Your task to perform on an android device: search for starred emails in the gmail app Image 0: 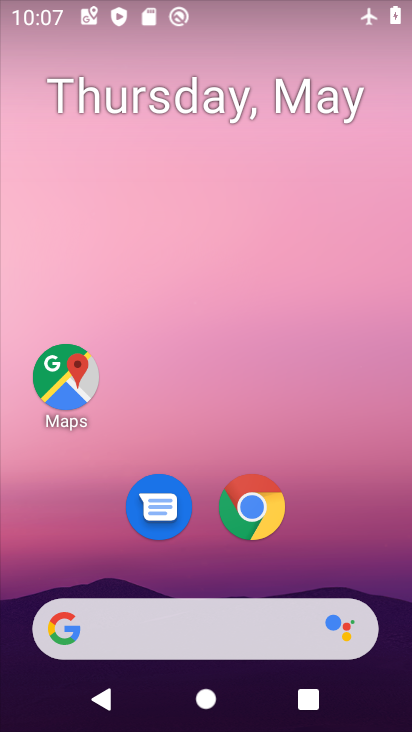
Step 0: drag from (279, 656) to (288, 184)
Your task to perform on an android device: search for starred emails in the gmail app Image 1: 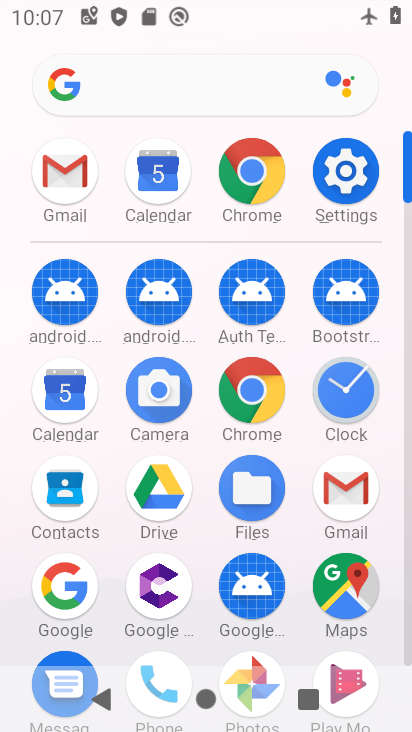
Step 1: click (340, 487)
Your task to perform on an android device: search for starred emails in the gmail app Image 2: 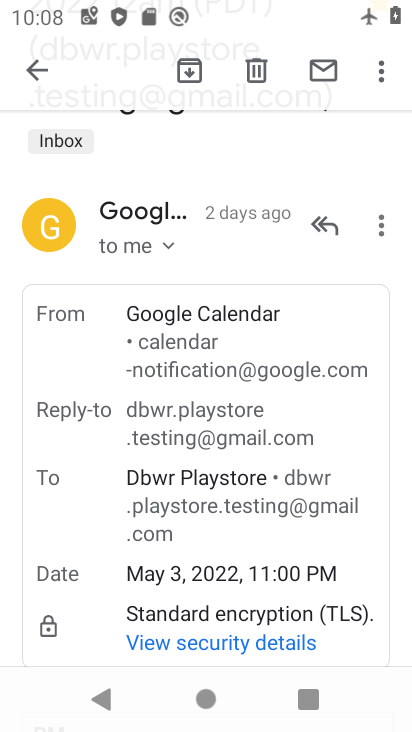
Step 2: click (43, 73)
Your task to perform on an android device: search for starred emails in the gmail app Image 3: 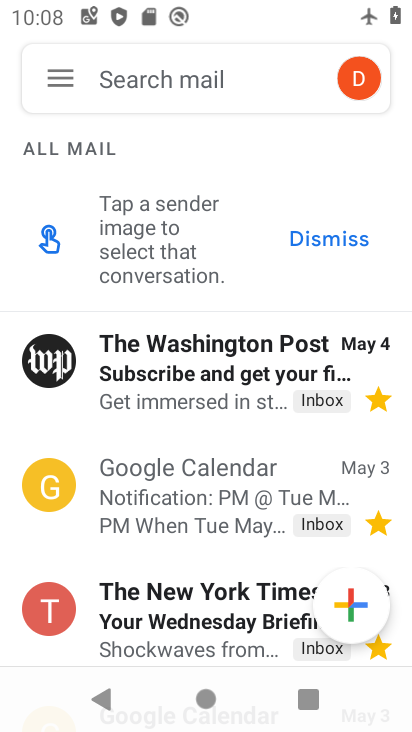
Step 3: drag from (160, 509) to (185, 51)
Your task to perform on an android device: search for starred emails in the gmail app Image 4: 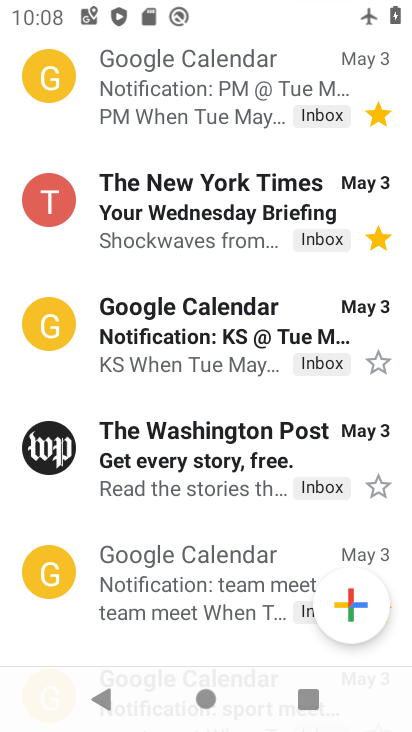
Step 4: click (229, 379)
Your task to perform on an android device: search for starred emails in the gmail app Image 5: 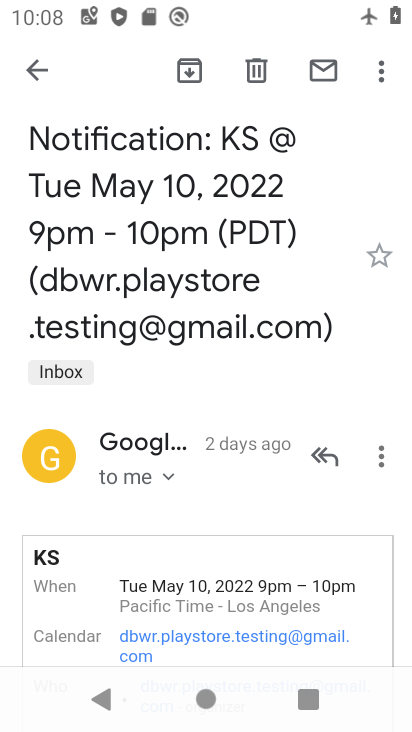
Step 5: click (55, 79)
Your task to perform on an android device: search for starred emails in the gmail app Image 6: 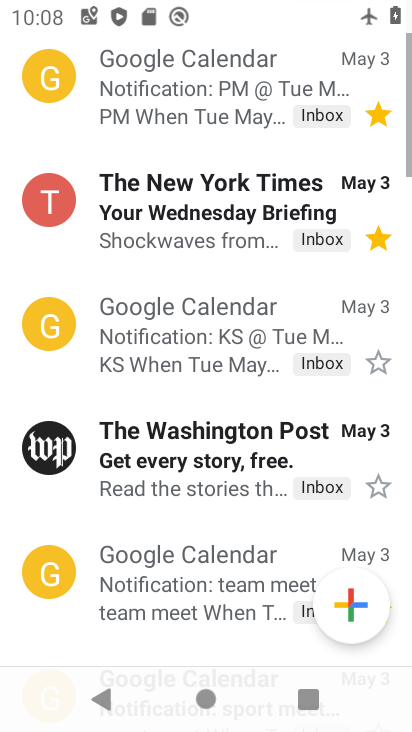
Step 6: drag from (192, 269) to (169, 706)
Your task to perform on an android device: search for starred emails in the gmail app Image 7: 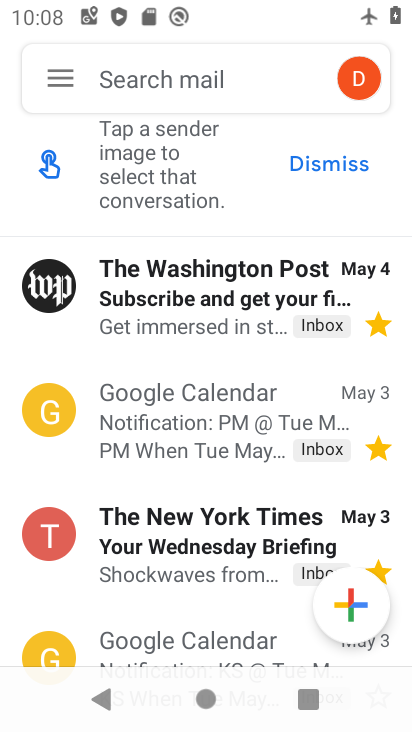
Step 7: click (58, 86)
Your task to perform on an android device: search for starred emails in the gmail app Image 8: 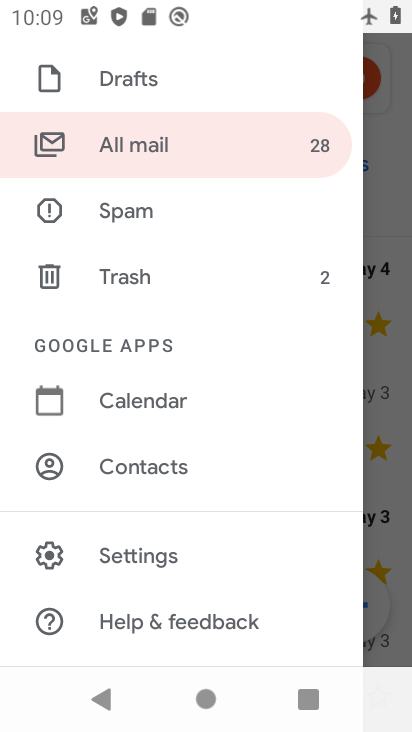
Step 8: drag from (174, 301) to (182, 586)
Your task to perform on an android device: search for starred emails in the gmail app Image 9: 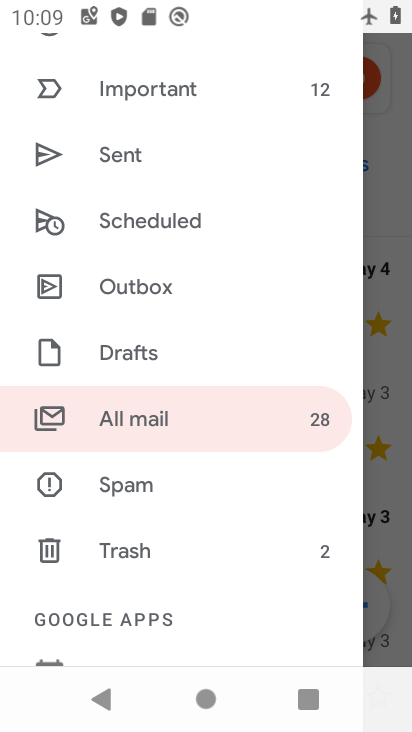
Step 9: drag from (189, 214) to (174, 550)
Your task to perform on an android device: search for starred emails in the gmail app Image 10: 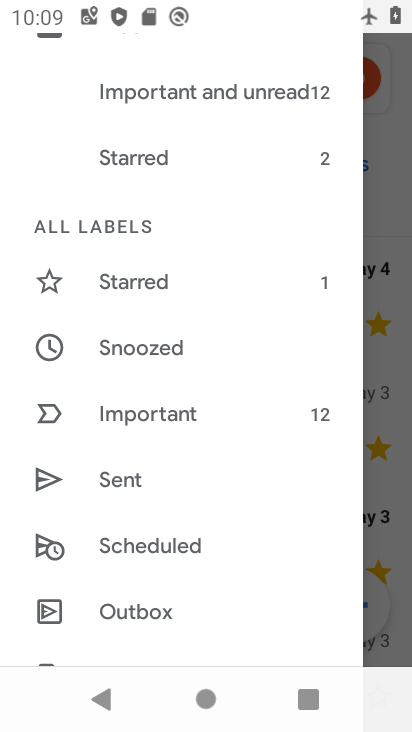
Step 10: click (202, 290)
Your task to perform on an android device: search for starred emails in the gmail app Image 11: 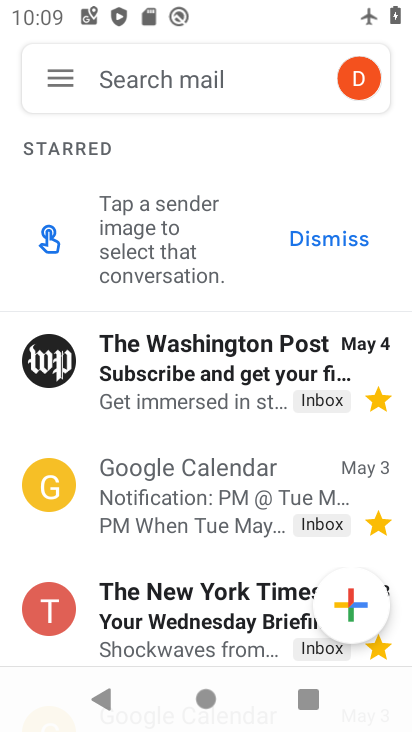
Step 11: task complete